Your task to perform on an android device: Open maps Image 0: 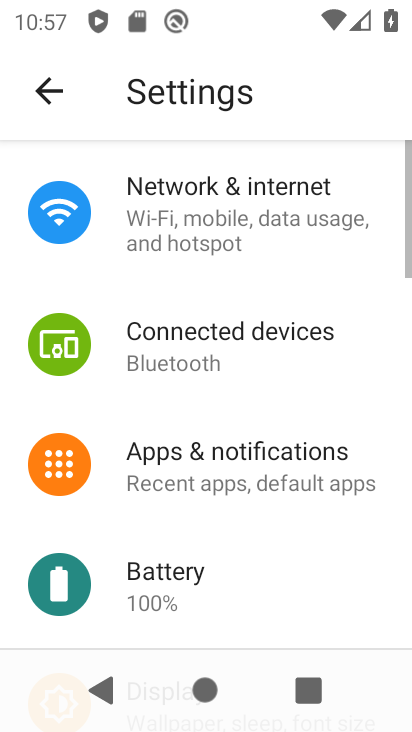
Step 0: press home button
Your task to perform on an android device: Open maps Image 1: 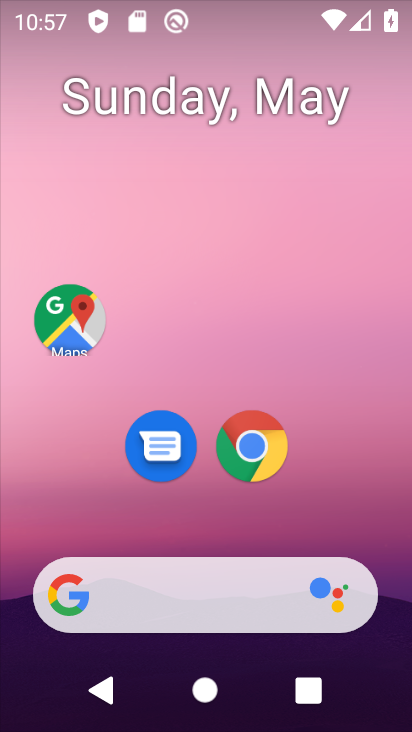
Step 1: click (82, 346)
Your task to perform on an android device: Open maps Image 2: 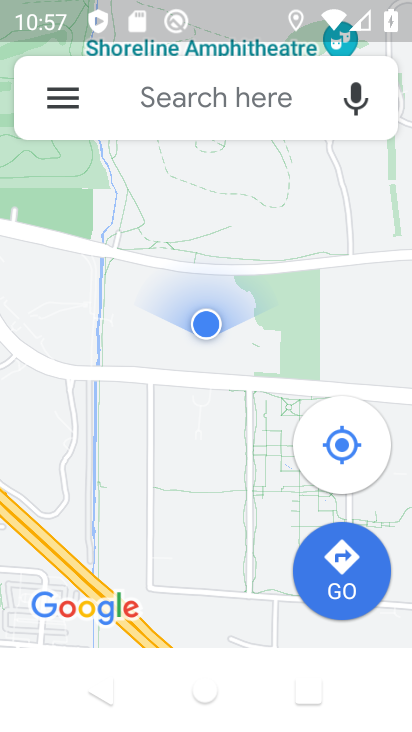
Step 2: task complete